Your task to perform on an android device: snooze an email in the gmail app Image 0: 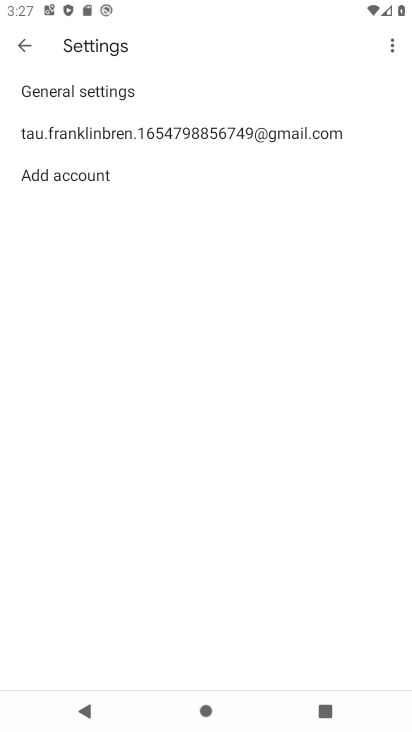
Step 0: click (209, 134)
Your task to perform on an android device: snooze an email in the gmail app Image 1: 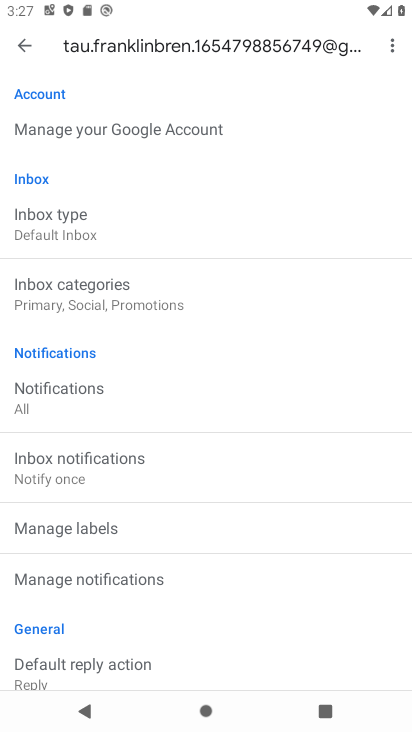
Step 1: task complete